Your task to perform on an android device: turn off javascript in the chrome app Image 0: 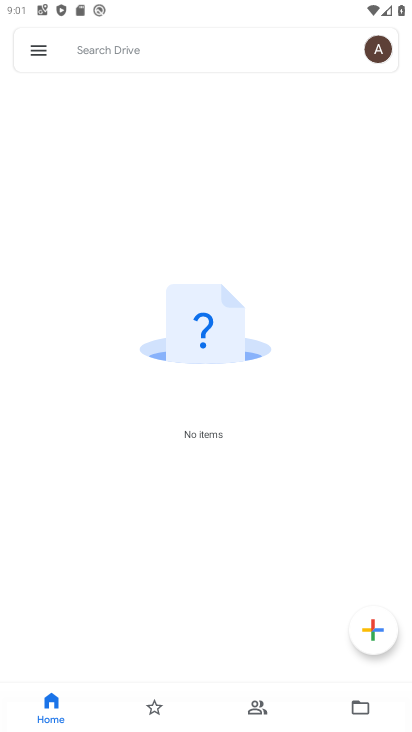
Step 0: drag from (238, 576) to (315, 210)
Your task to perform on an android device: turn off javascript in the chrome app Image 1: 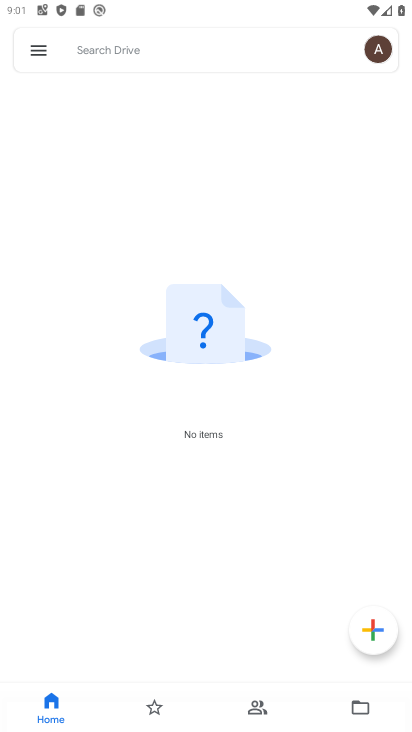
Step 1: drag from (231, 636) to (317, 250)
Your task to perform on an android device: turn off javascript in the chrome app Image 2: 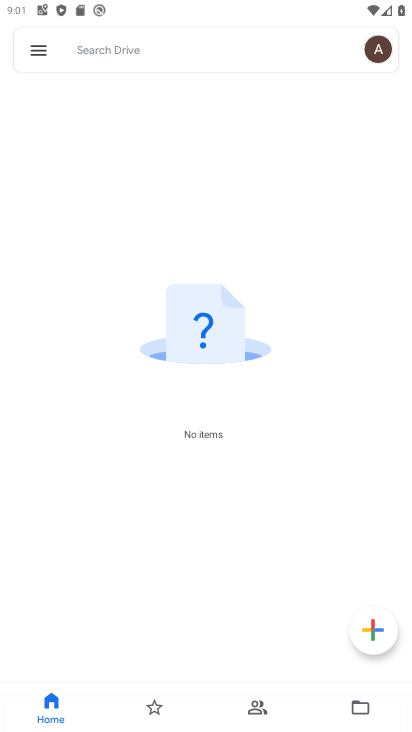
Step 2: drag from (191, 590) to (213, 435)
Your task to perform on an android device: turn off javascript in the chrome app Image 3: 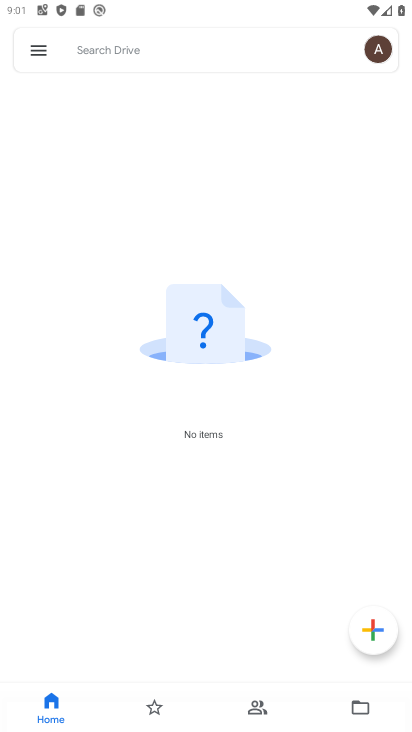
Step 3: press home button
Your task to perform on an android device: turn off javascript in the chrome app Image 4: 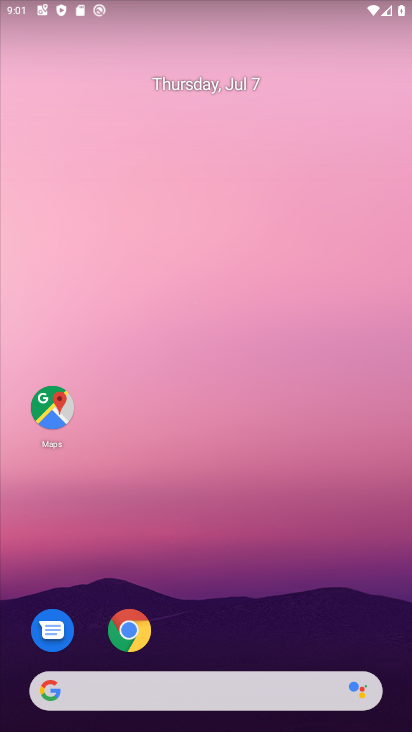
Step 4: drag from (208, 611) to (277, 199)
Your task to perform on an android device: turn off javascript in the chrome app Image 5: 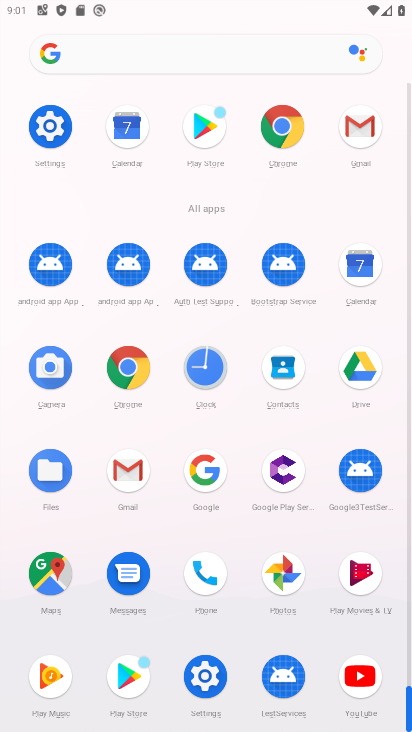
Step 5: click (296, 119)
Your task to perform on an android device: turn off javascript in the chrome app Image 6: 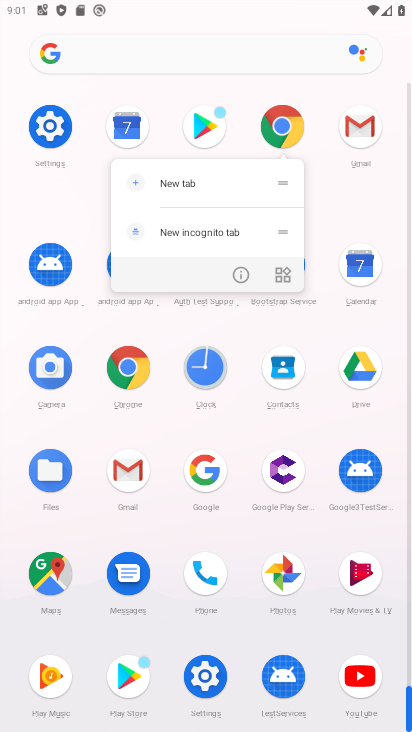
Step 6: click (246, 273)
Your task to perform on an android device: turn off javascript in the chrome app Image 7: 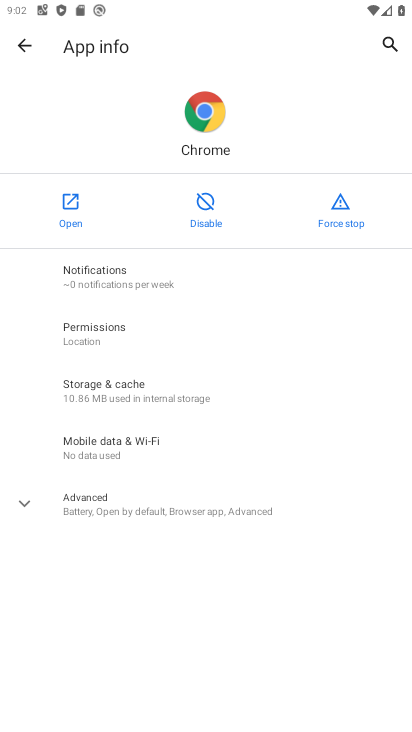
Step 7: click (66, 199)
Your task to perform on an android device: turn off javascript in the chrome app Image 8: 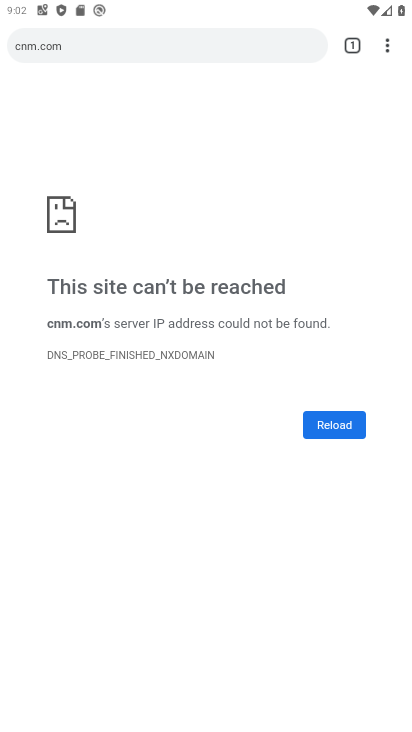
Step 8: click (387, 43)
Your task to perform on an android device: turn off javascript in the chrome app Image 9: 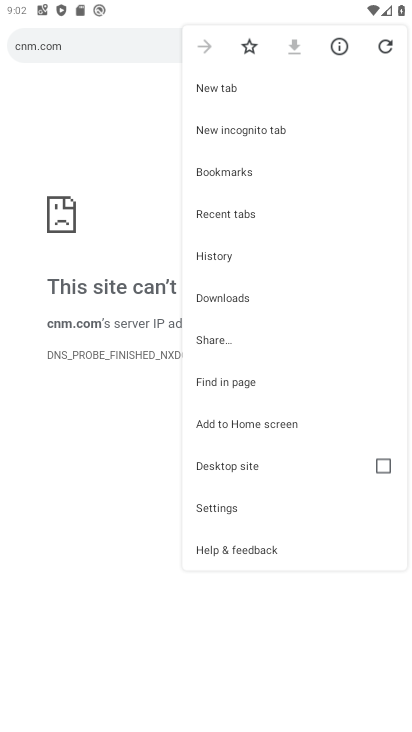
Step 9: click (259, 503)
Your task to perform on an android device: turn off javascript in the chrome app Image 10: 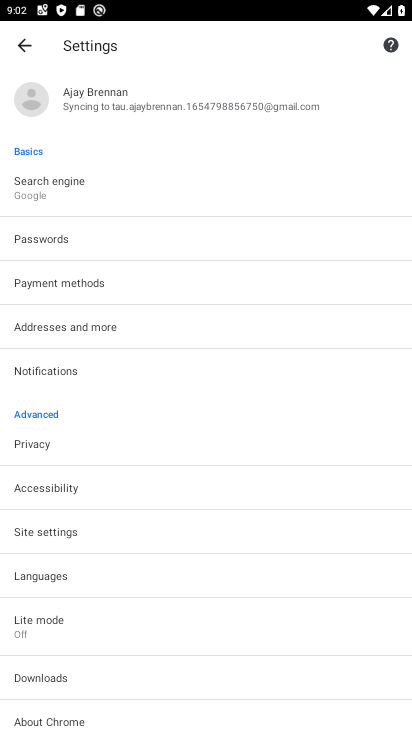
Step 10: drag from (185, 551) to (306, 83)
Your task to perform on an android device: turn off javascript in the chrome app Image 11: 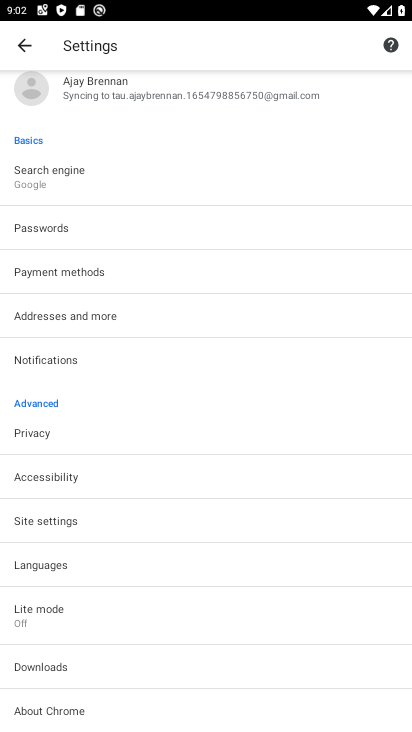
Step 11: click (112, 522)
Your task to perform on an android device: turn off javascript in the chrome app Image 12: 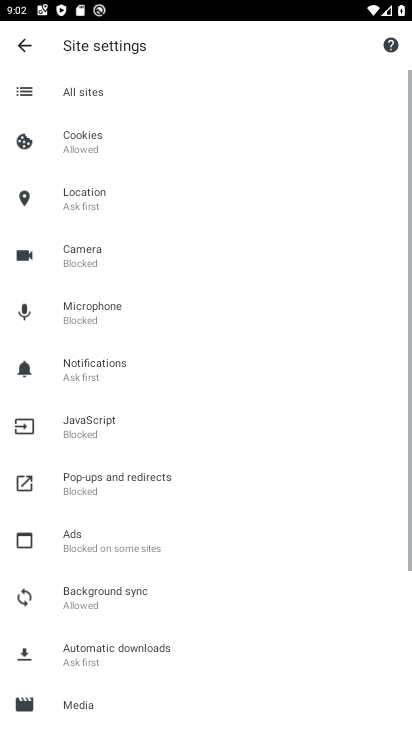
Step 12: drag from (118, 510) to (209, 92)
Your task to perform on an android device: turn off javascript in the chrome app Image 13: 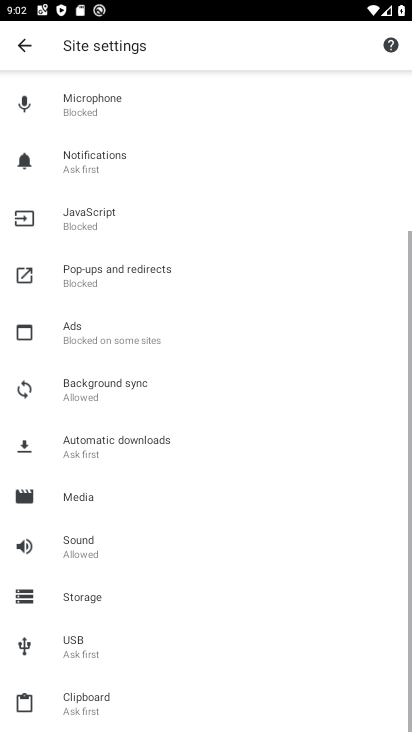
Step 13: click (113, 214)
Your task to perform on an android device: turn off javascript in the chrome app Image 14: 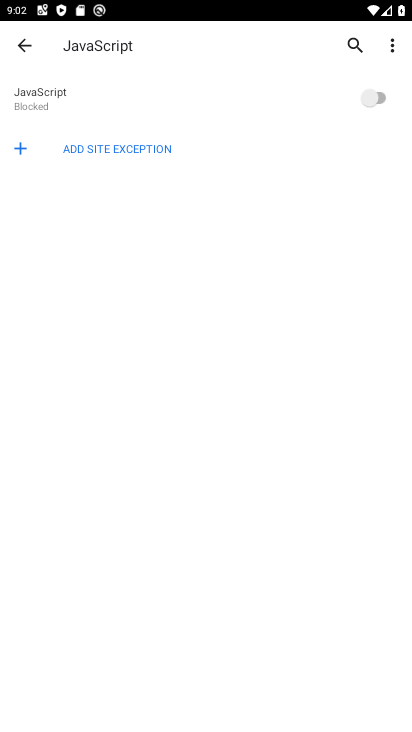
Step 14: task complete